Your task to perform on an android device: open chrome and create a bookmark for the current page Image 0: 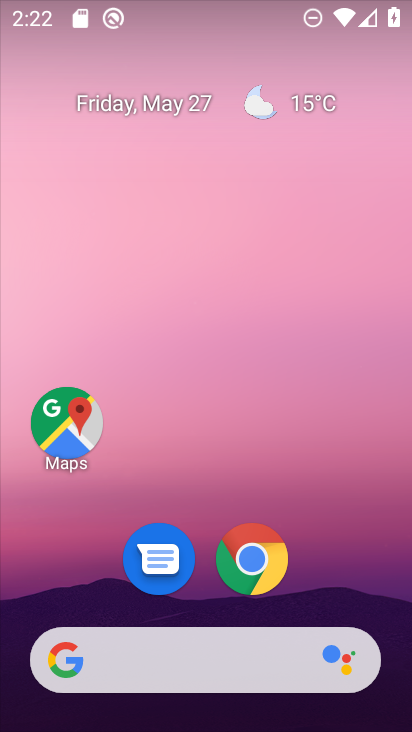
Step 0: drag from (239, 660) to (286, 104)
Your task to perform on an android device: open chrome and create a bookmark for the current page Image 1: 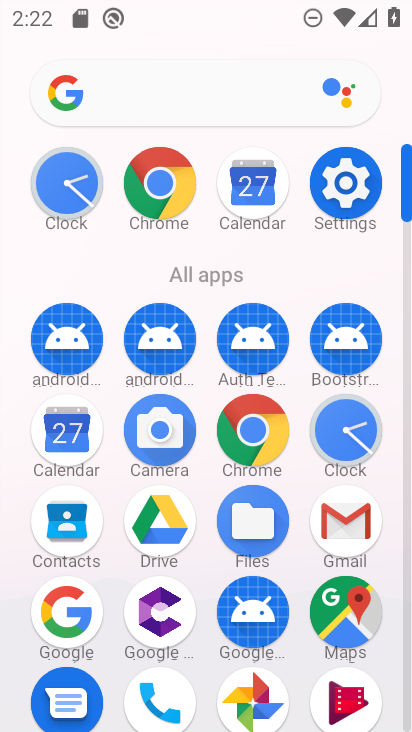
Step 1: click (259, 437)
Your task to perform on an android device: open chrome and create a bookmark for the current page Image 2: 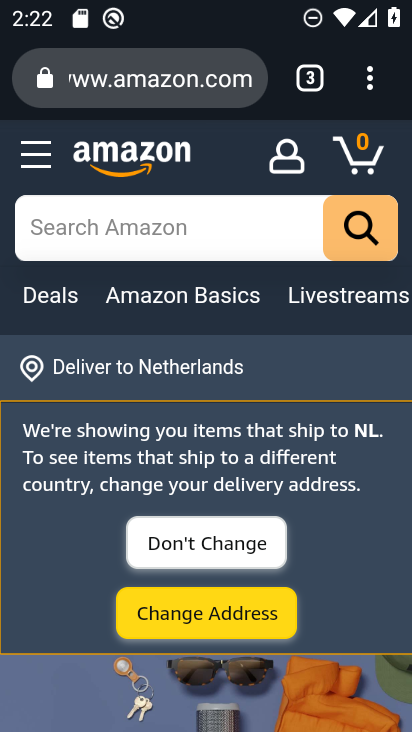
Step 2: task complete